Your task to perform on an android device: Open display settings Image 0: 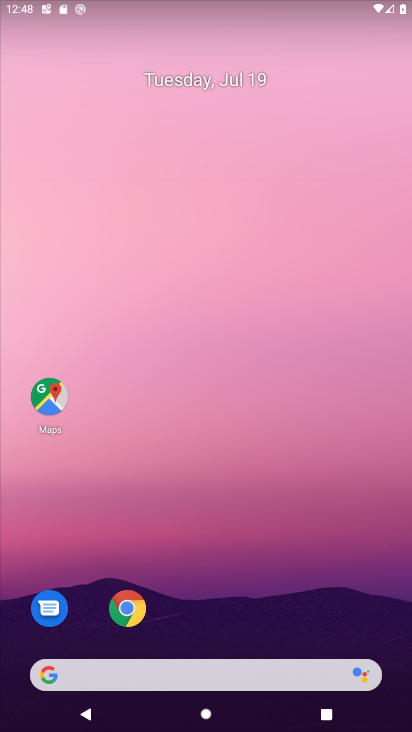
Step 0: drag from (191, 614) to (179, 175)
Your task to perform on an android device: Open display settings Image 1: 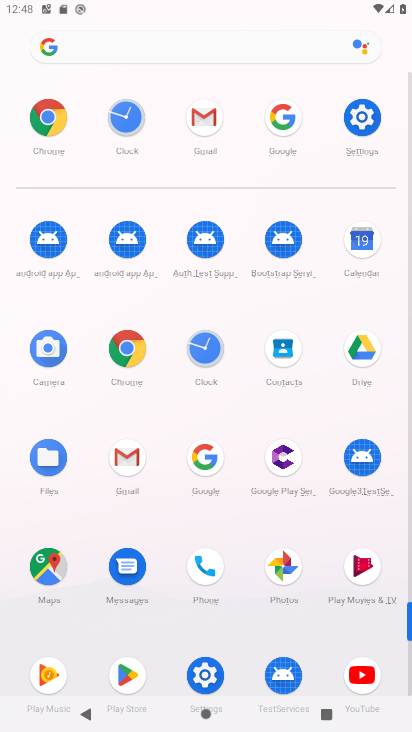
Step 1: click (203, 682)
Your task to perform on an android device: Open display settings Image 2: 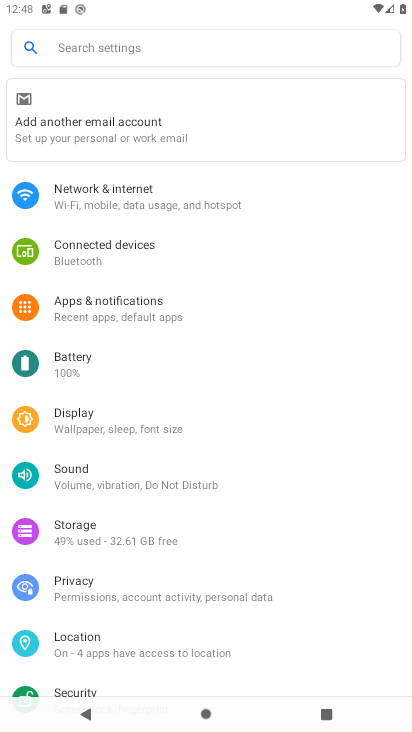
Step 2: click (101, 430)
Your task to perform on an android device: Open display settings Image 3: 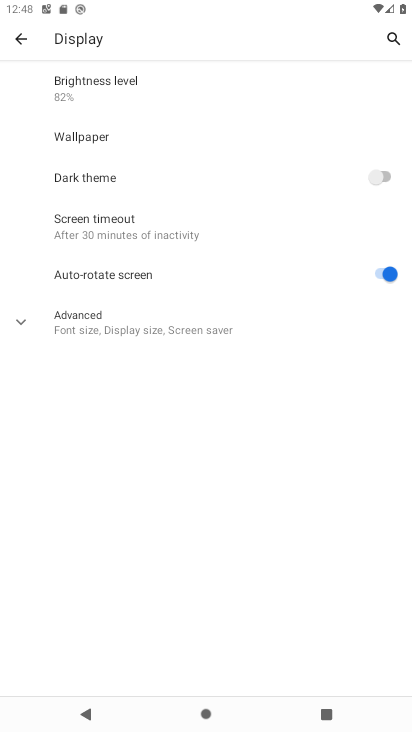
Step 3: task complete